Your task to perform on an android device: Add "usb-b" to the cart on newegg, then select checkout. Image 0: 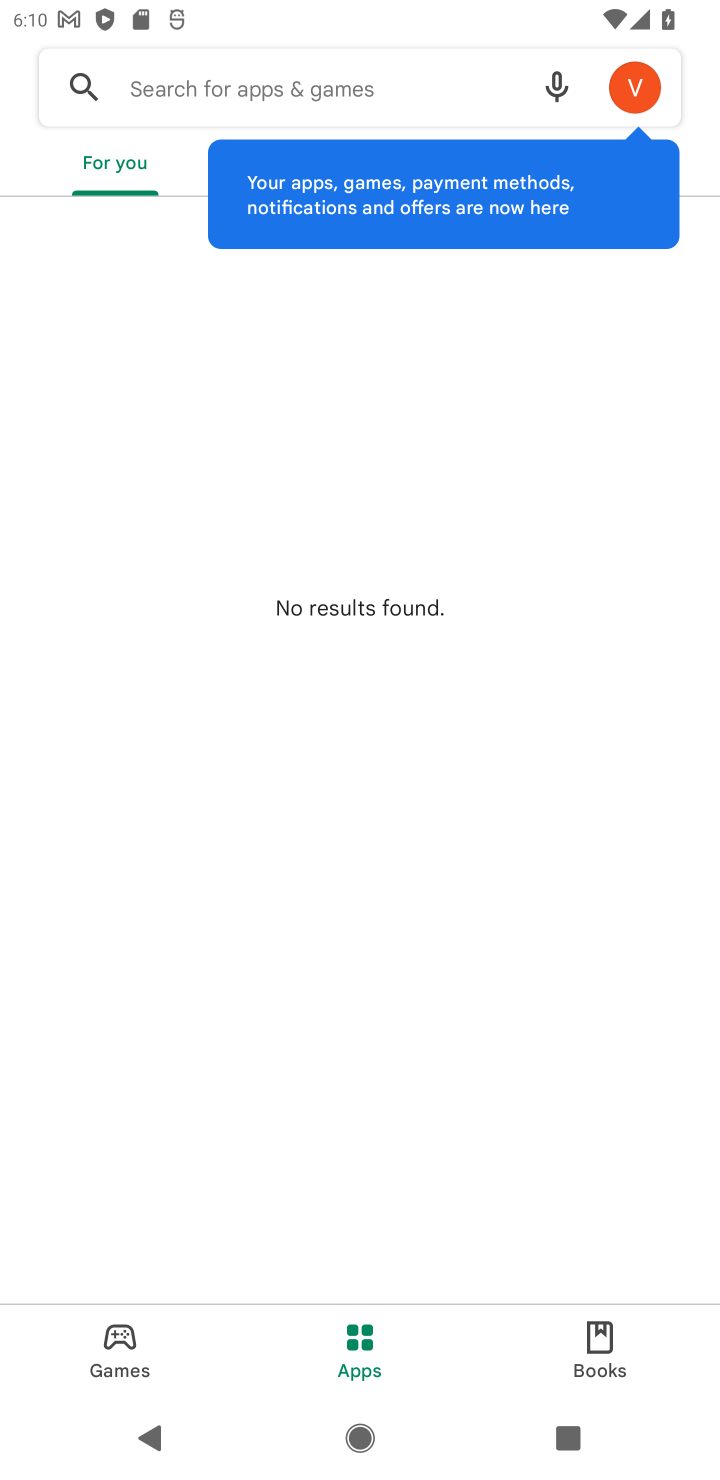
Step 0: press home button
Your task to perform on an android device: Add "usb-b" to the cart on newegg, then select checkout. Image 1: 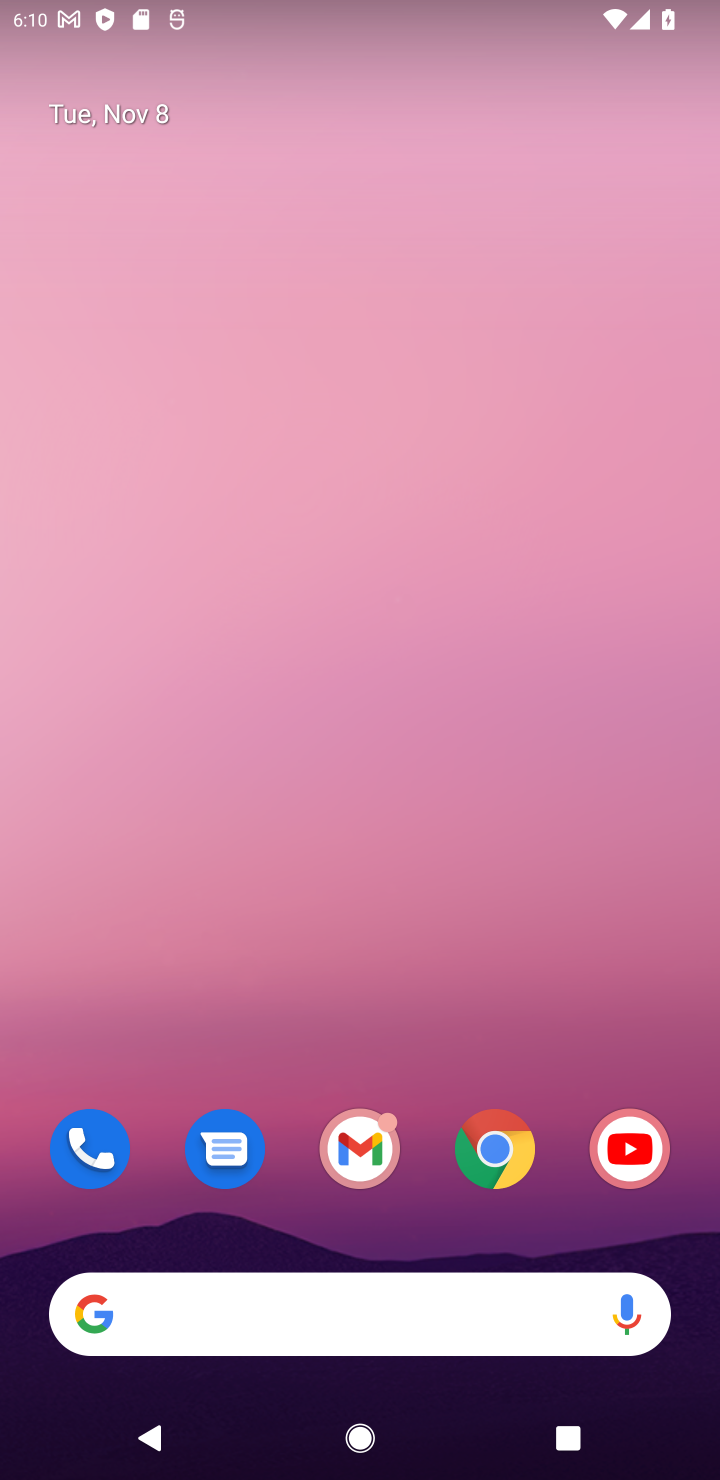
Step 1: click (502, 1141)
Your task to perform on an android device: Add "usb-b" to the cart on newegg, then select checkout. Image 2: 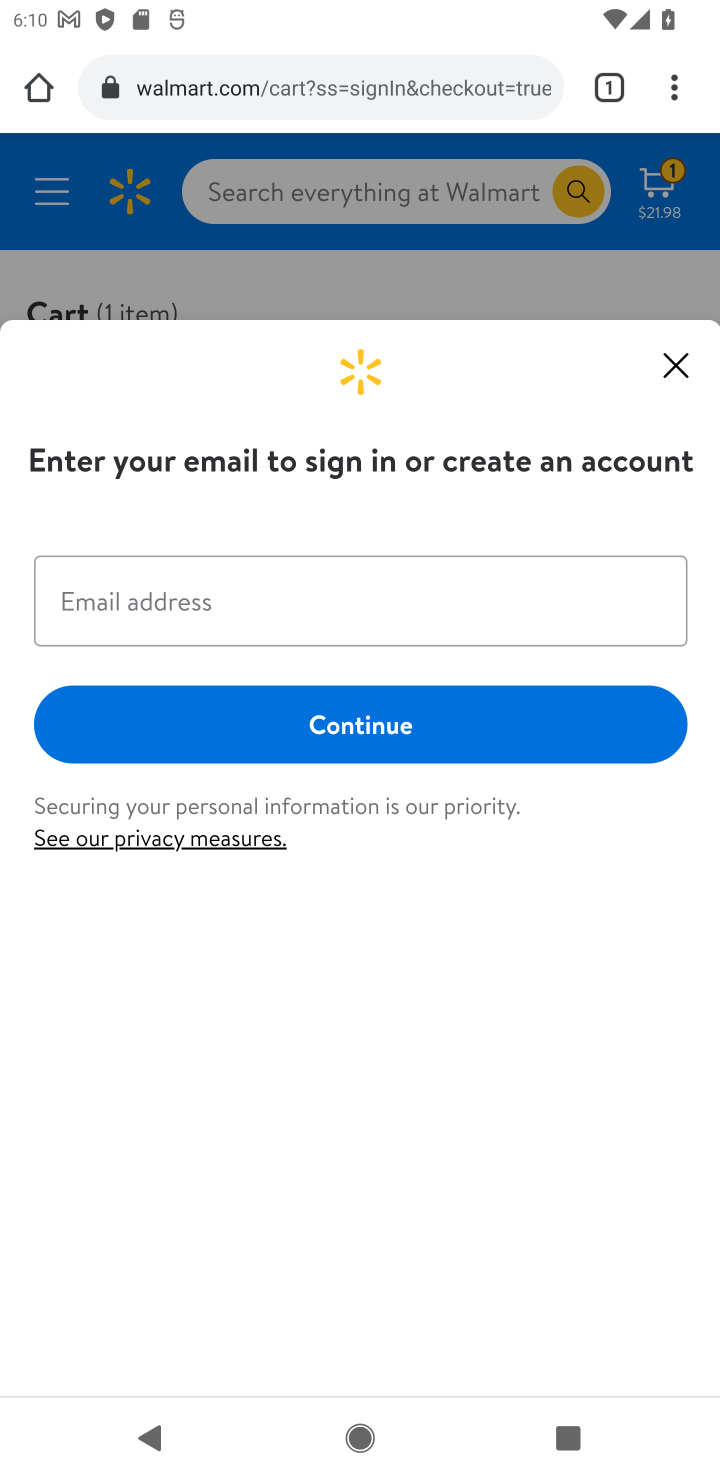
Step 2: click (453, 62)
Your task to perform on an android device: Add "usb-b" to the cart on newegg, then select checkout. Image 3: 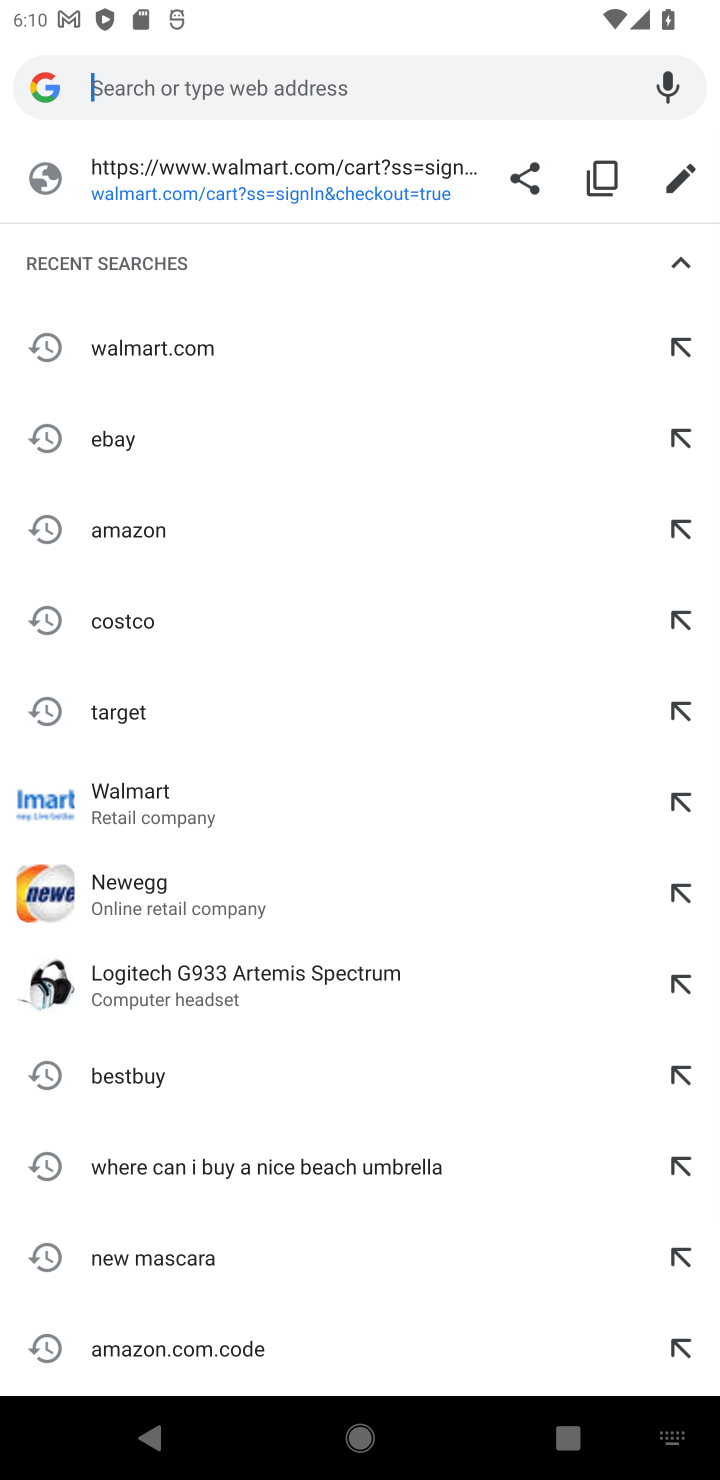
Step 3: press enter
Your task to perform on an android device: Add "usb-b" to the cart on newegg, then select checkout. Image 4: 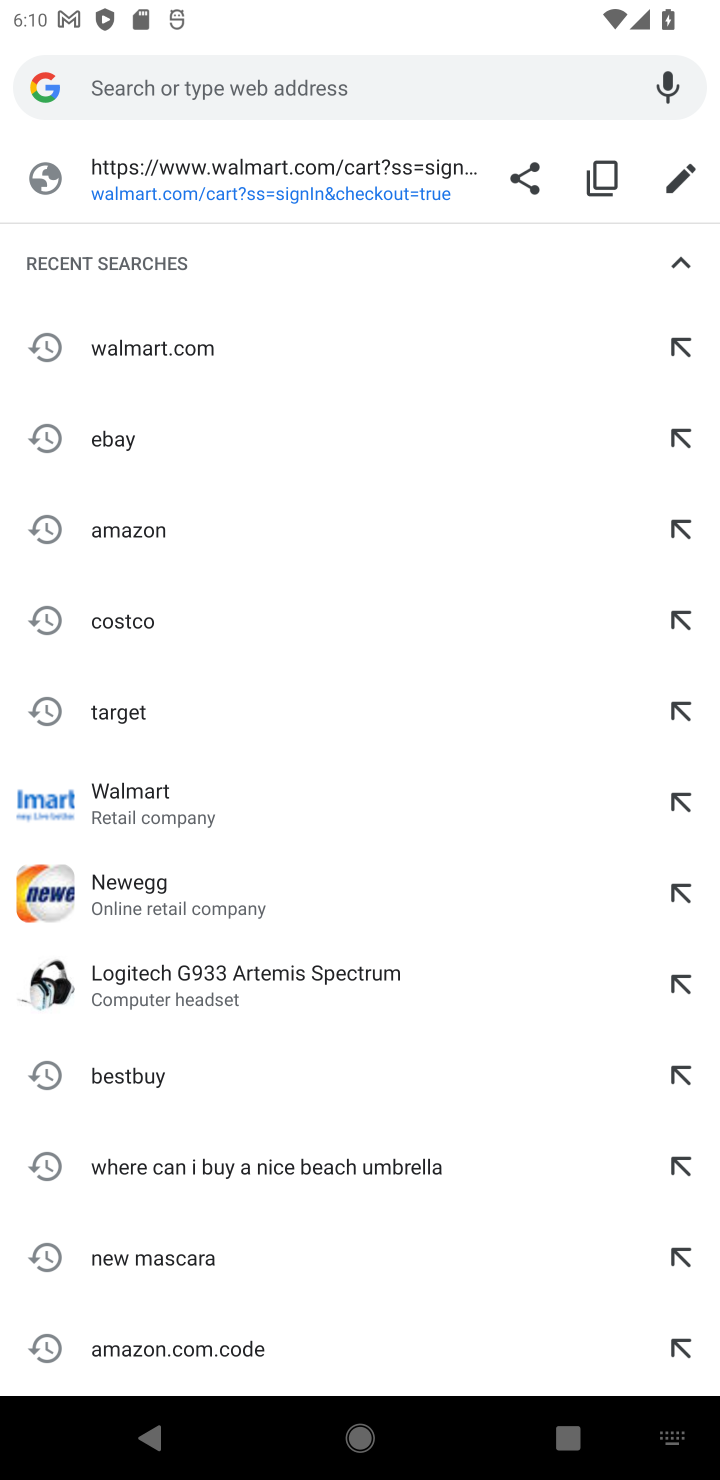
Step 4: type "newegg"
Your task to perform on an android device: Add "usb-b" to the cart on newegg, then select checkout. Image 5: 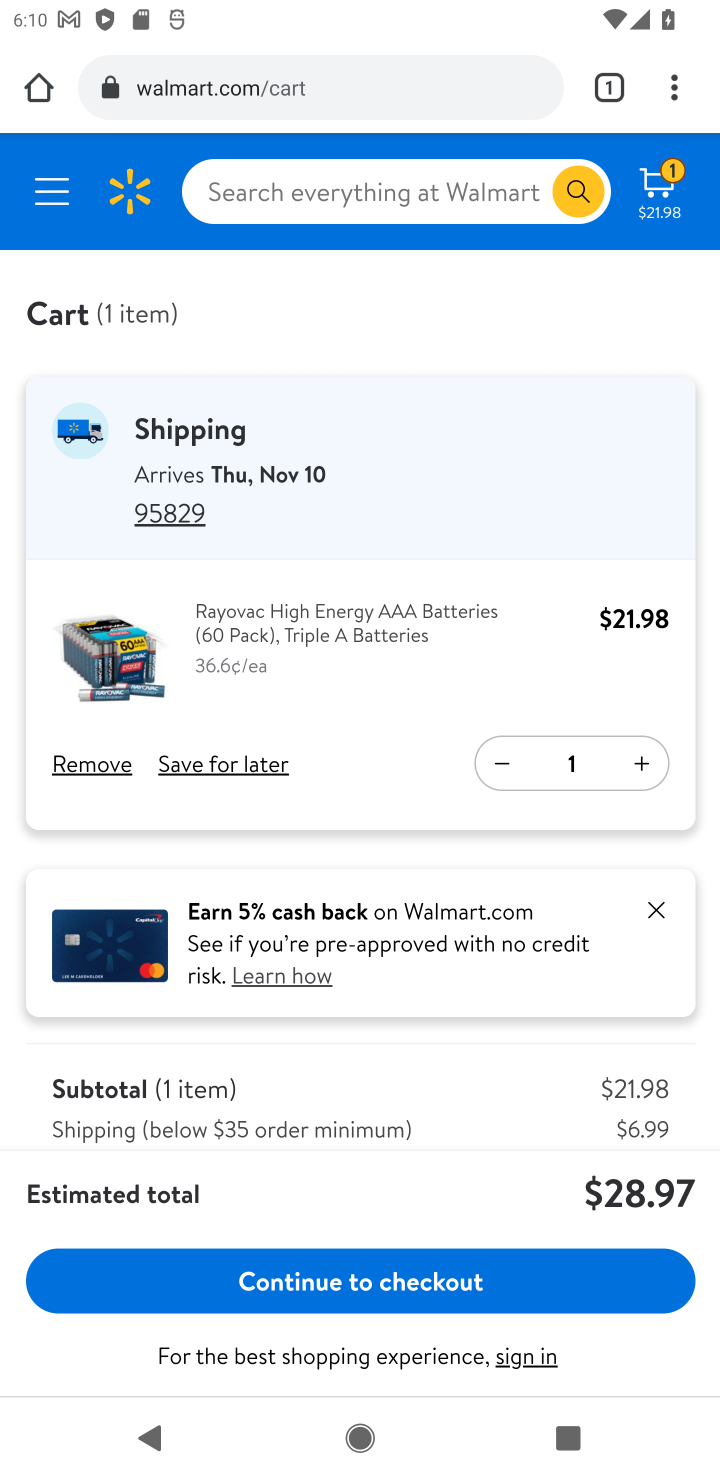
Step 5: click (327, 184)
Your task to perform on an android device: Add "usb-b" to the cart on newegg, then select checkout. Image 6: 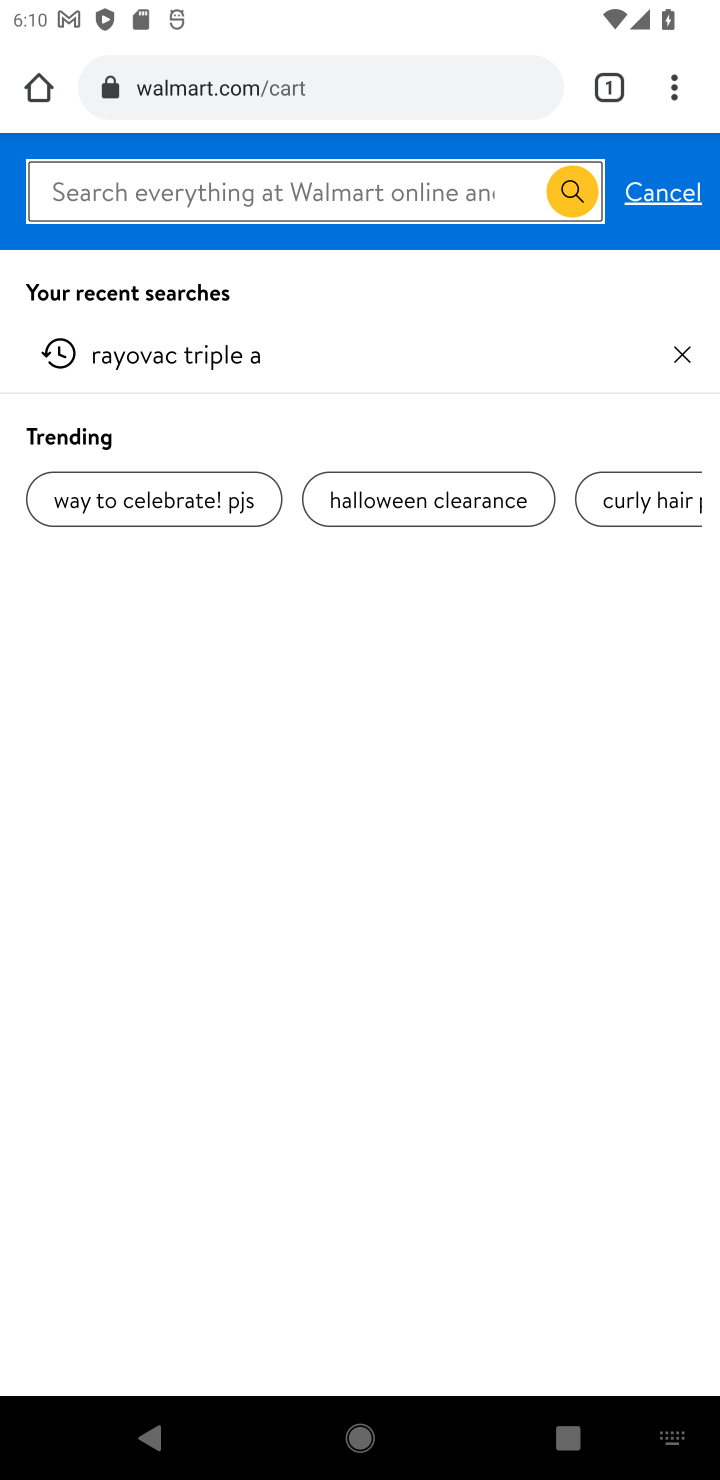
Step 6: type "usb-b"
Your task to perform on an android device: Add "usb-b" to the cart on newegg, then select checkout. Image 7: 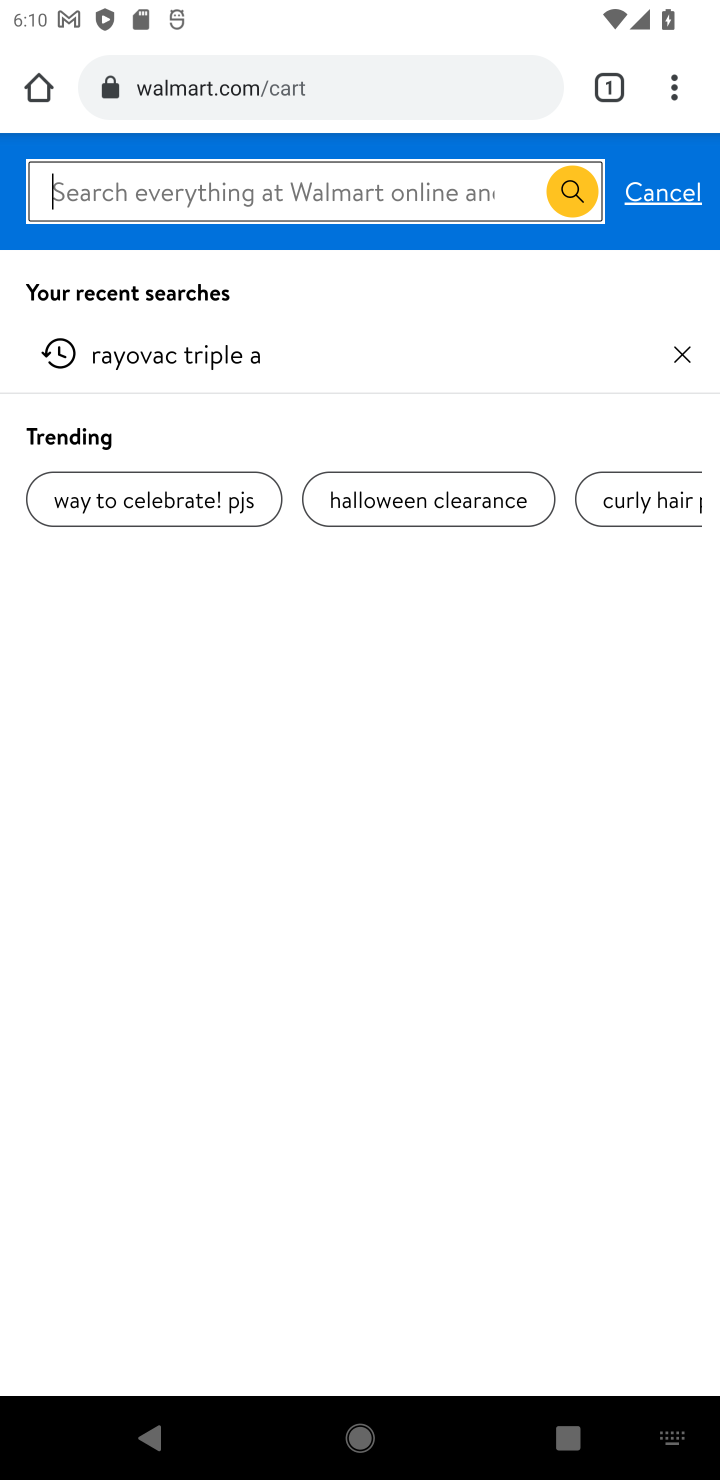
Step 7: press enter
Your task to perform on an android device: Add "usb-b" to the cart on newegg, then select checkout. Image 8: 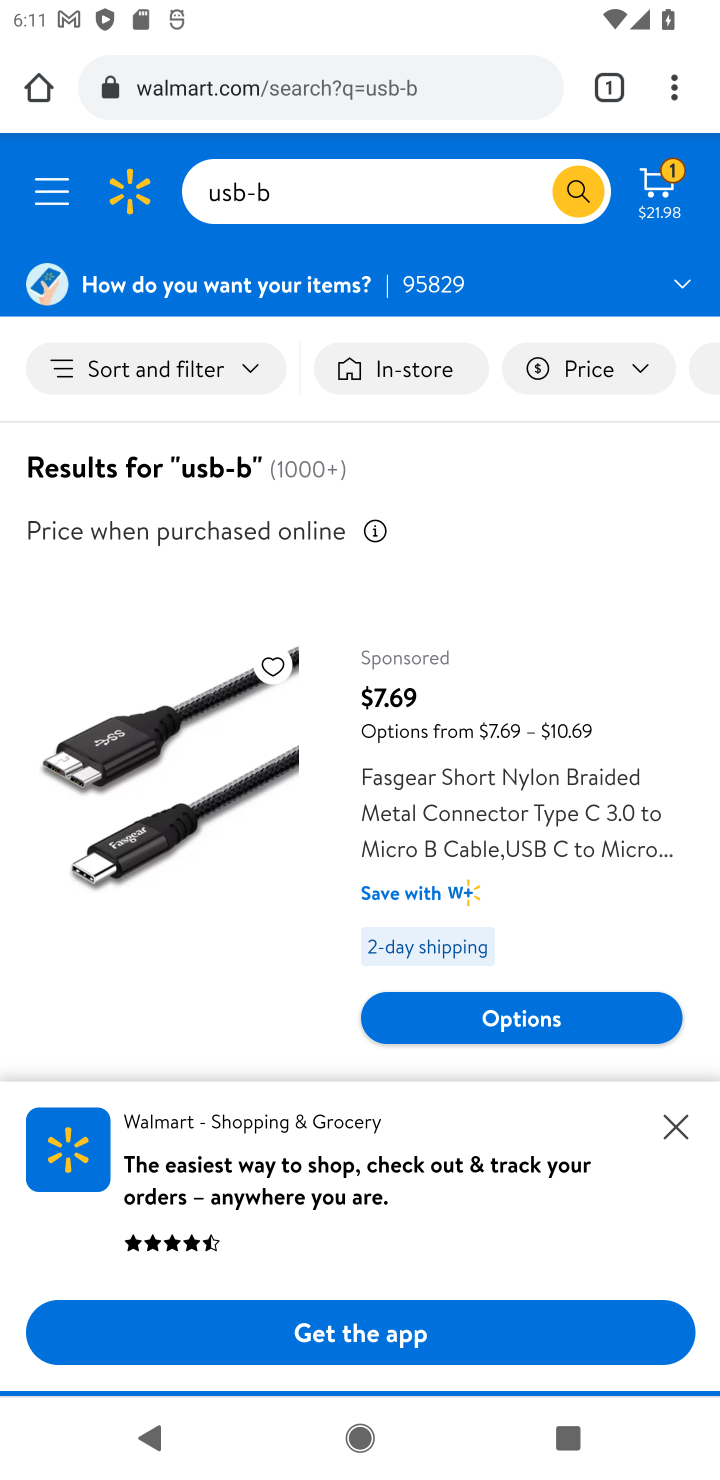
Step 8: drag from (505, 859) to (439, 221)
Your task to perform on an android device: Add "usb-b" to the cart on newegg, then select checkout. Image 9: 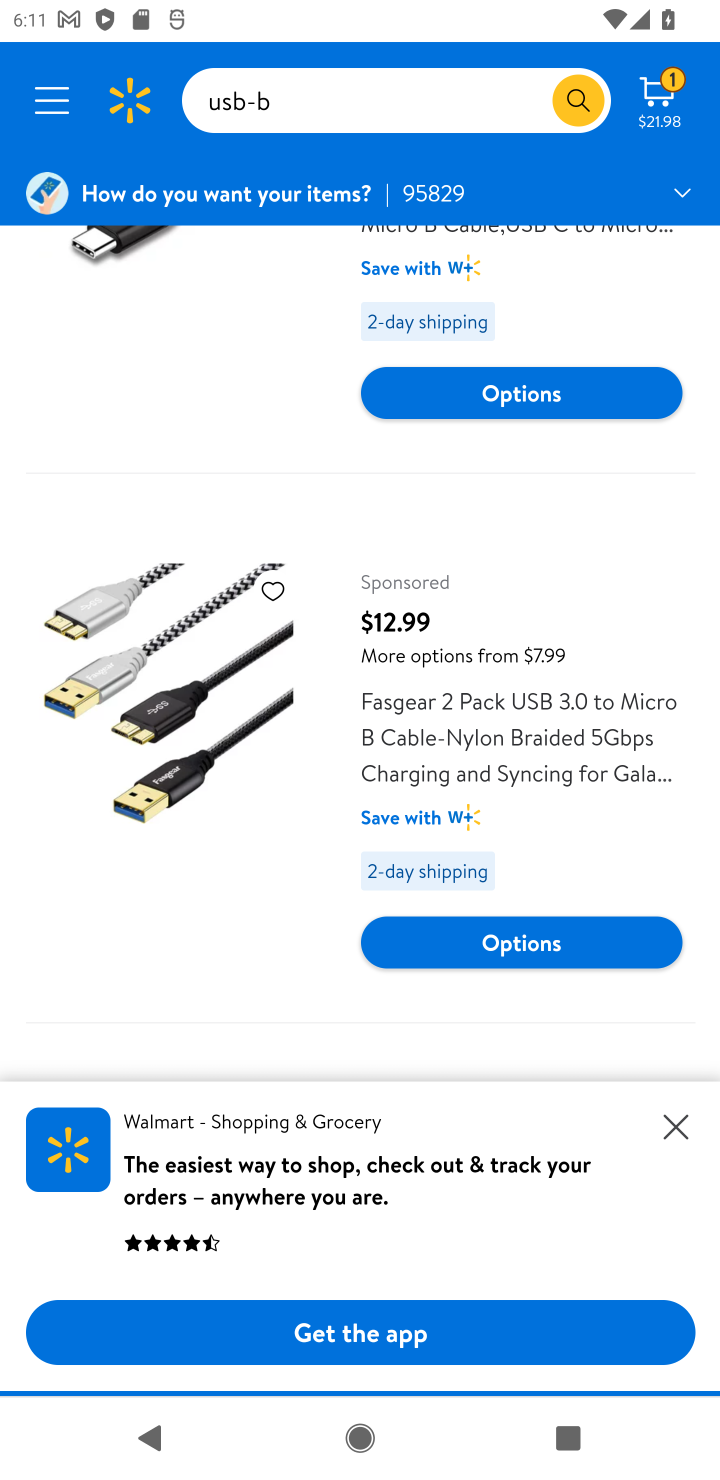
Step 9: click (76, 664)
Your task to perform on an android device: Add "usb-b" to the cart on newegg, then select checkout. Image 10: 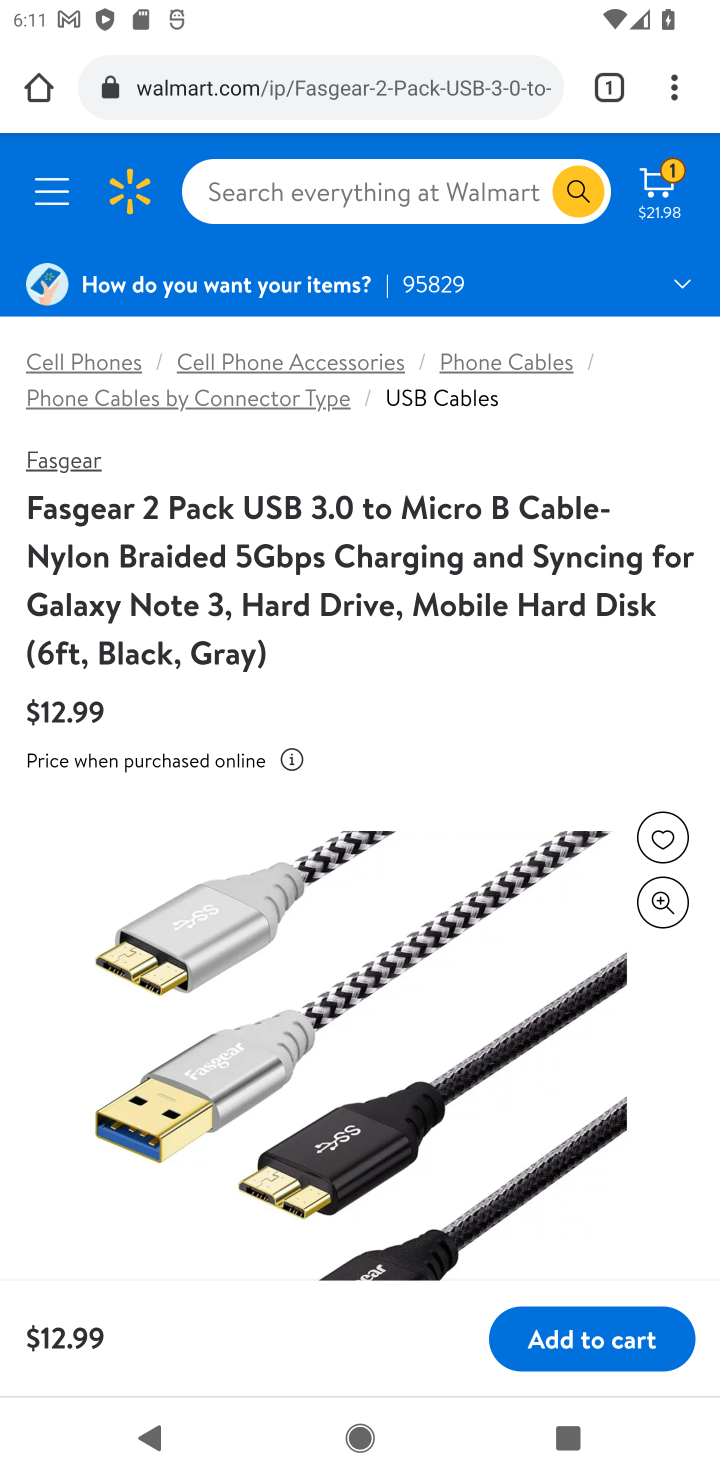
Step 10: click (619, 1329)
Your task to perform on an android device: Add "usb-b" to the cart on newegg, then select checkout. Image 11: 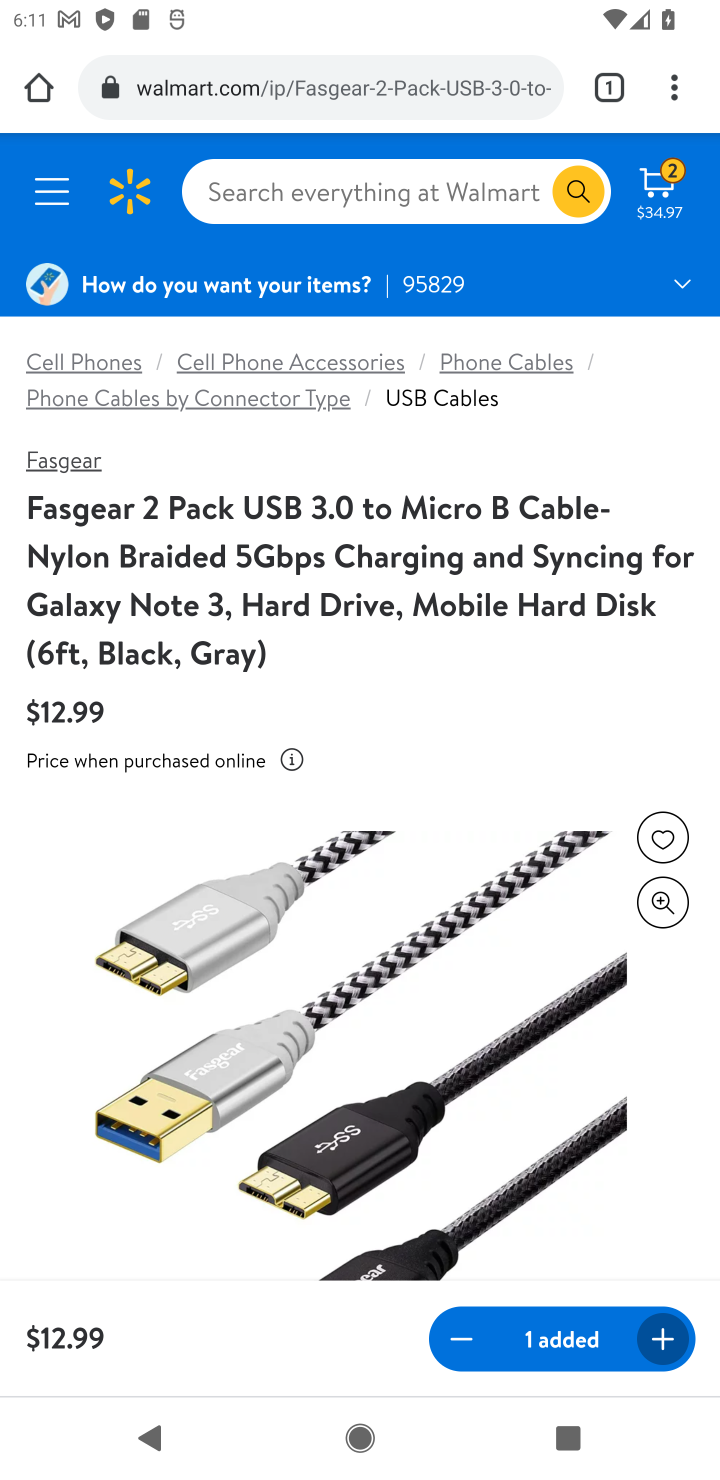
Step 11: click (647, 193)
Your task to perform on an android device: Add "usb-b" to the cart on newegg, then select checkout. Image 12: 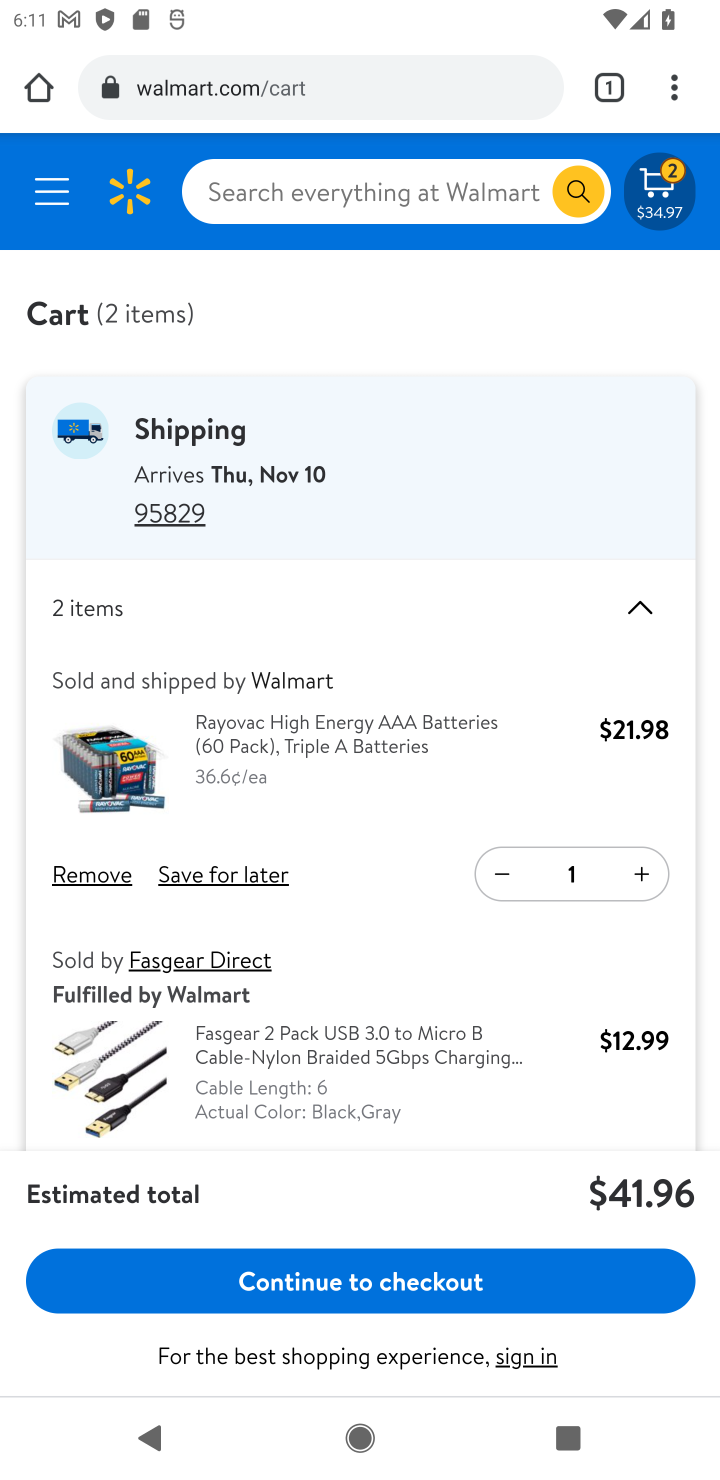
Step 12: click (469, 1269)
Your task to perform on an android device: Add "usb-b" to the cart on newegg, then select checkout. Image 13: 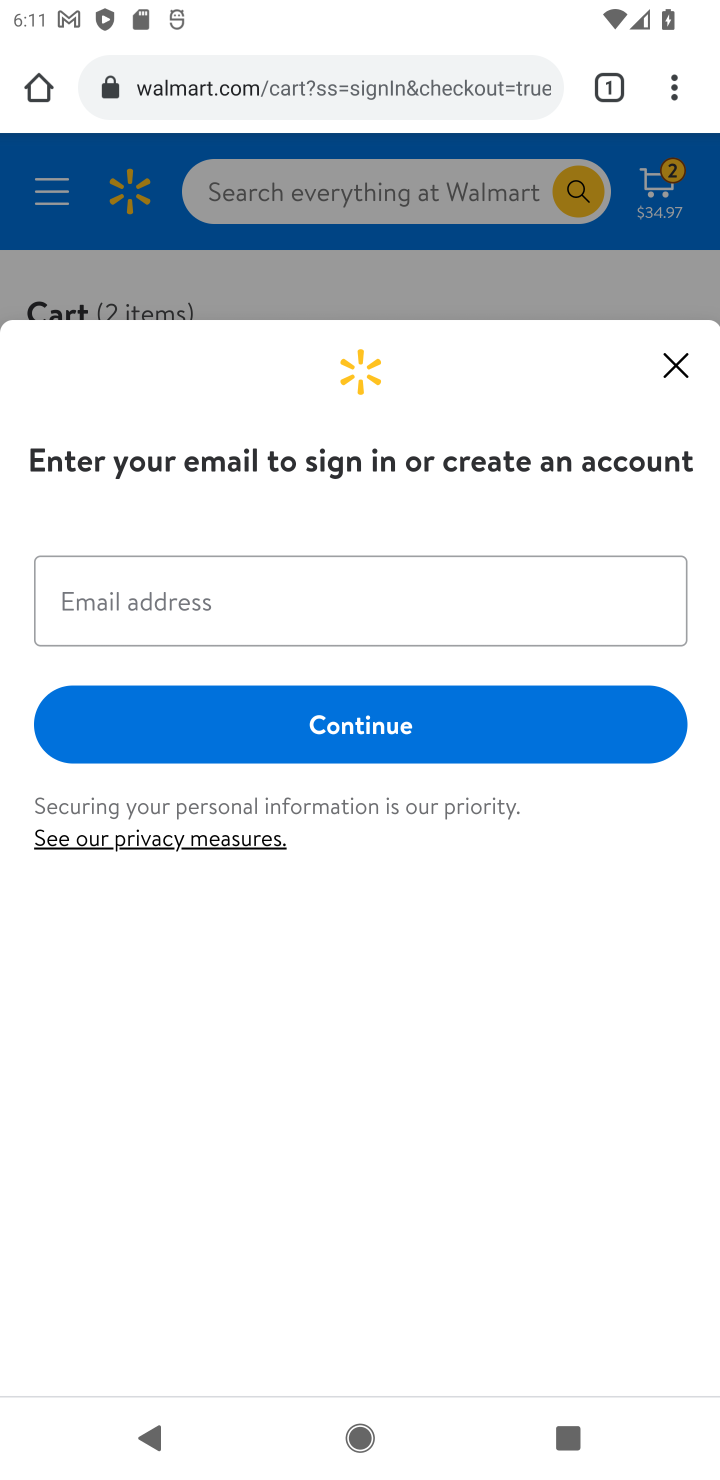
Step 13: task complete